Your task to perform on an android device: star an email in the gmail app Image 0: 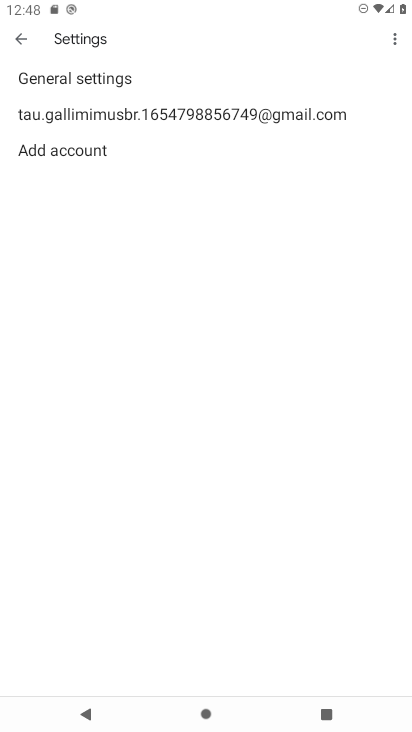
Step 0: press home button
Your task to perform on an android device: star an email in the gmail app Image 1: 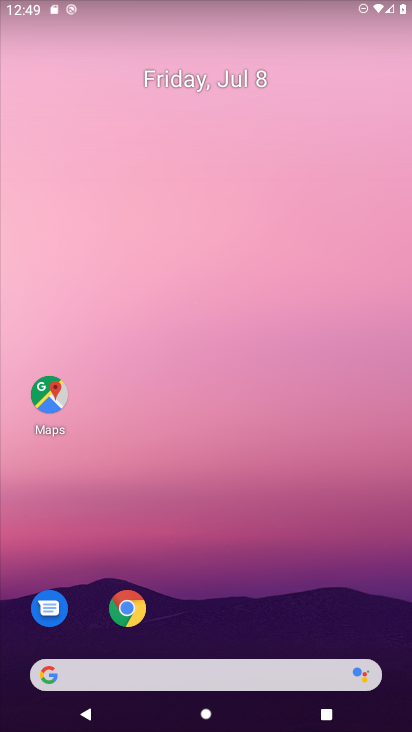
Step 1: drag from (229, 579) to (218, 139)
Your task to perform on an android device: star an email in the gmail app Image 2: 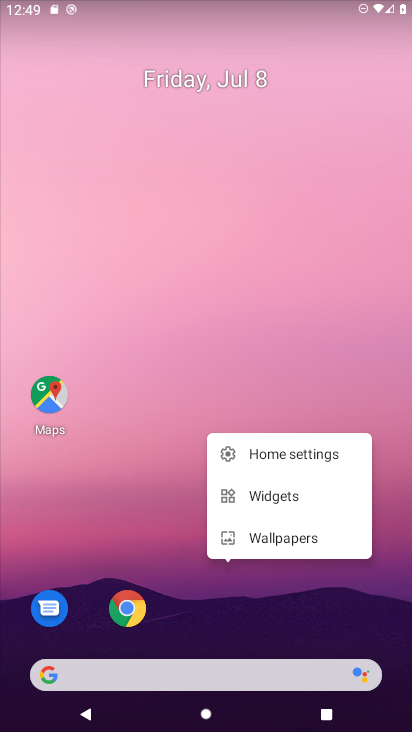
Step 2: click (218, 139)
Your task to perform on an android device: star an email in the gmail app Image 3: 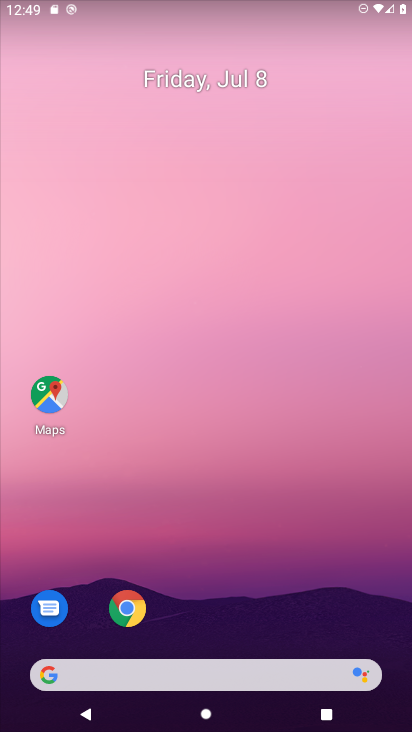
Step 3: drag from (225, 589) to (185, 123)
Your task to perform on an android device: star an email in the gmail app Image 4: 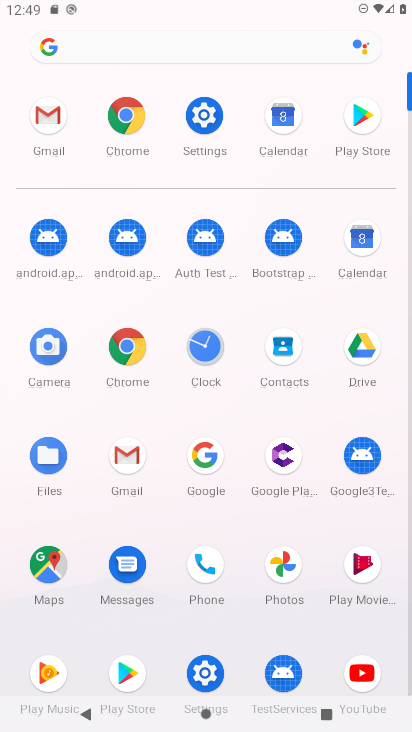
Step 4: click (199, 115)
Your task to perform on an android device: star an email in the gmail app Image 5: 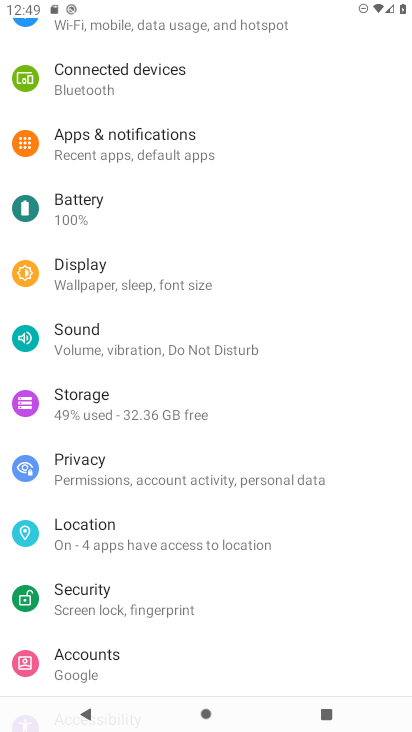
Step 5: press home button
Your task to perform on an android device: star an email in the gmail app Image 6: 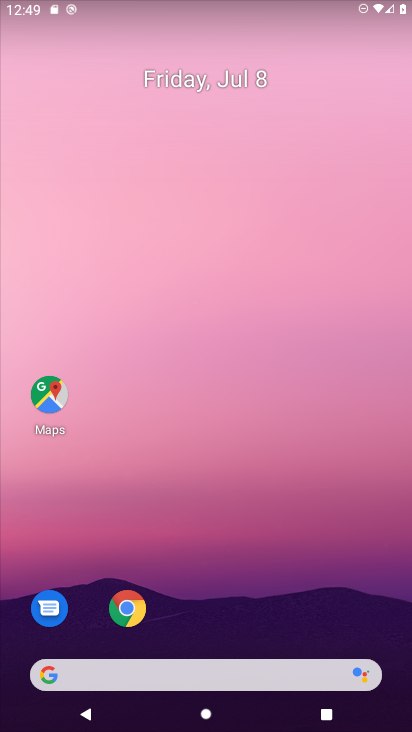
Step 6: drag from (232, 603) to (220, 74)
Your task to perform on an android device: star an email in the gmail app Image 7: 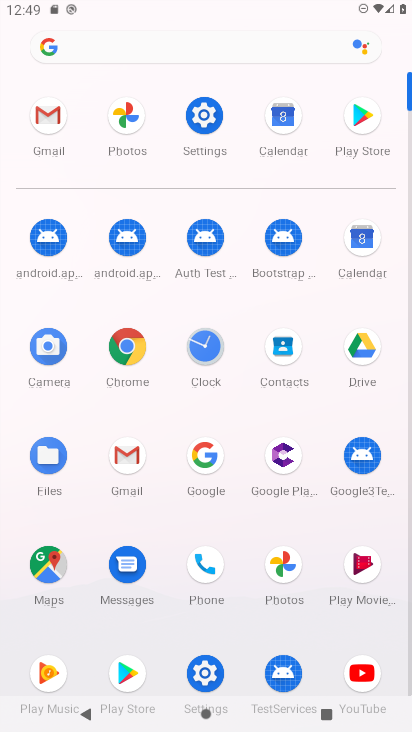
Step 7: click (51, 152)
Your task to perform on an android device: star an email in the gmail app Image 8: 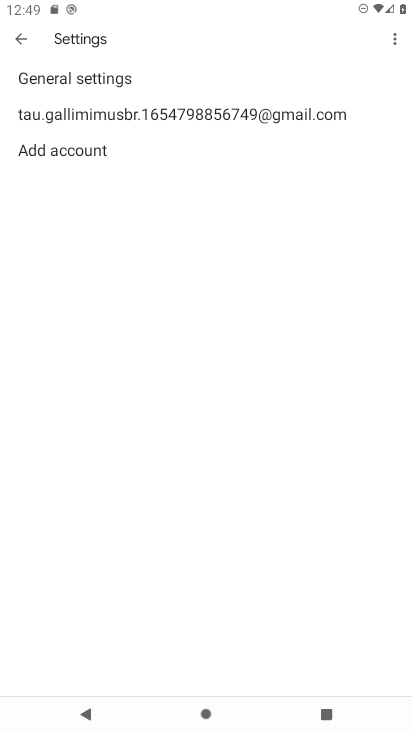
Step 8: click (87, 120)
Your task to perform on an android device: star an email in the gmail app Image 9: 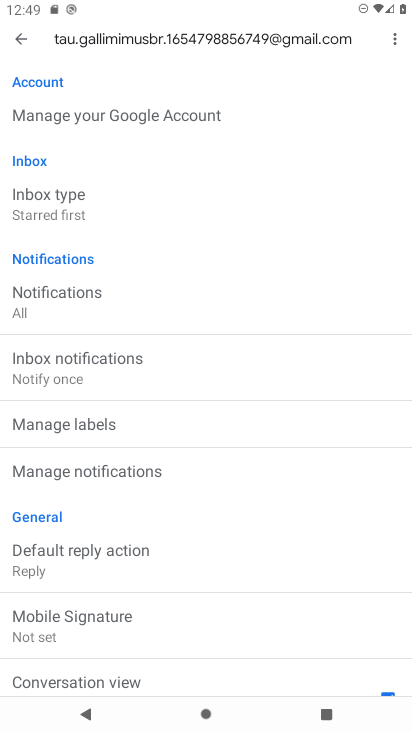
Step 9: click (26, 46)
Your task to perform on an android device: star an email in the gmail app Image 10: 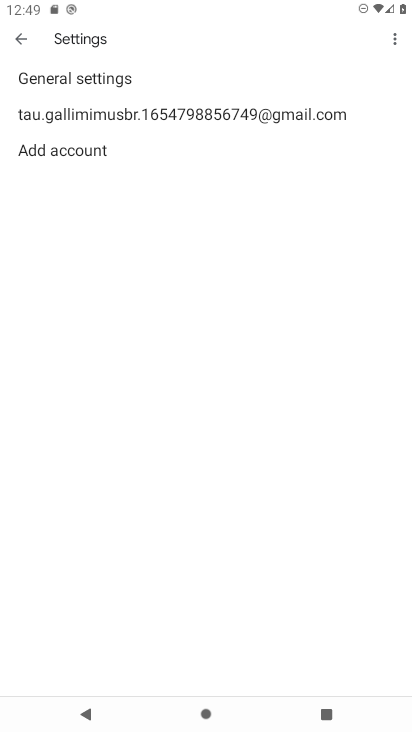
Step 10: click (26, 46)
Your task to perform on an android device: star an email in the gmail app Image 11: 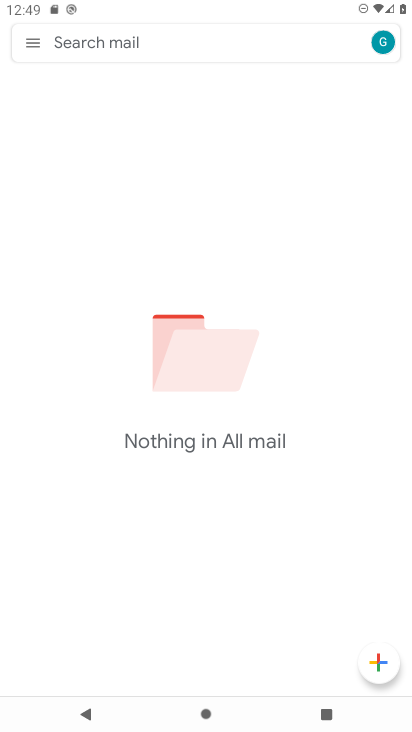
Step 11: click (26, 46)
Your task to perform on an android device: star an email in the gmail app Image 12: 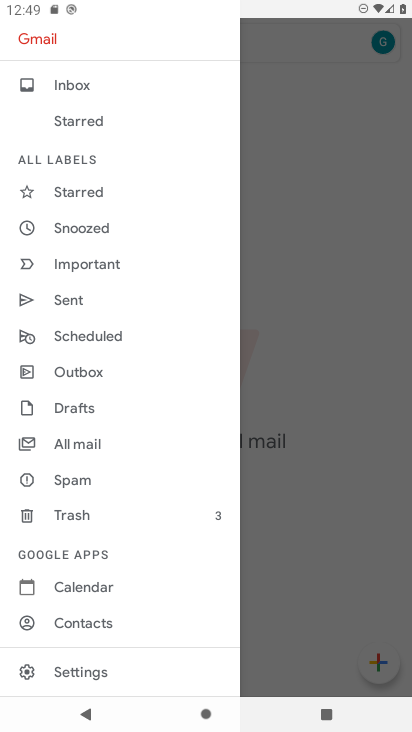
Step 12: click (62, 191)
Your task to perform on an android device: star an email in the gmail app Image 13: 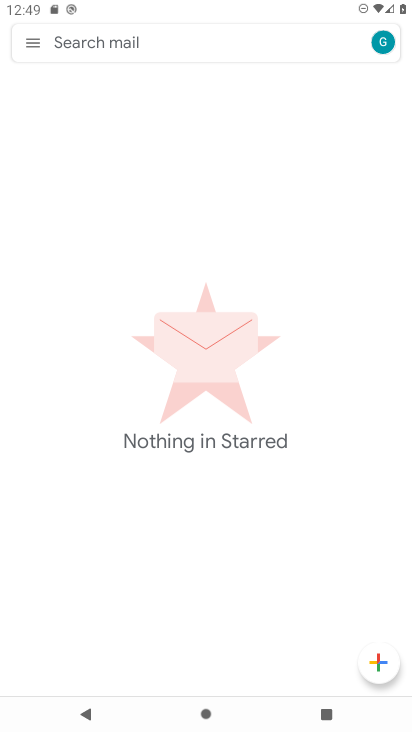
Step 13: task complete